Your task to perform on an android device: remove spam from my inbox in the gmail app Image 0: 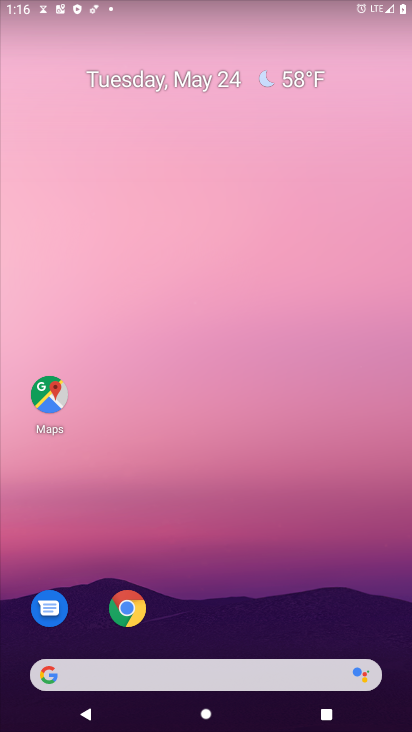
Step 0: press home button
Your task to perform on an android device: remove spam from my inbox in the gmail app Image 1: 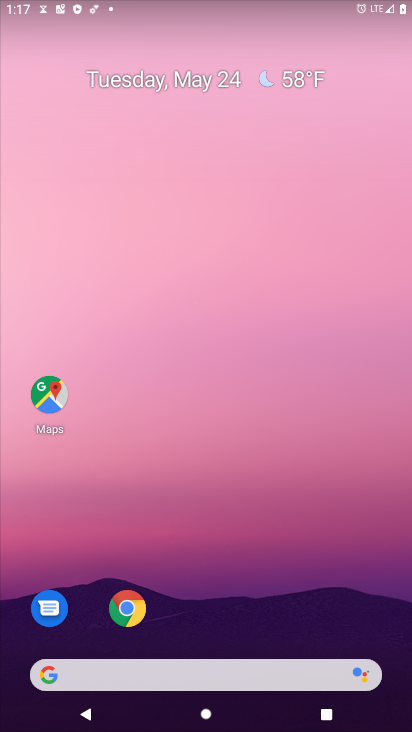
Step 1: drag from (295, 690) to (342, 77)
Your task to perform on an android device: remove spam from my inbox in the gmail app Image 2: 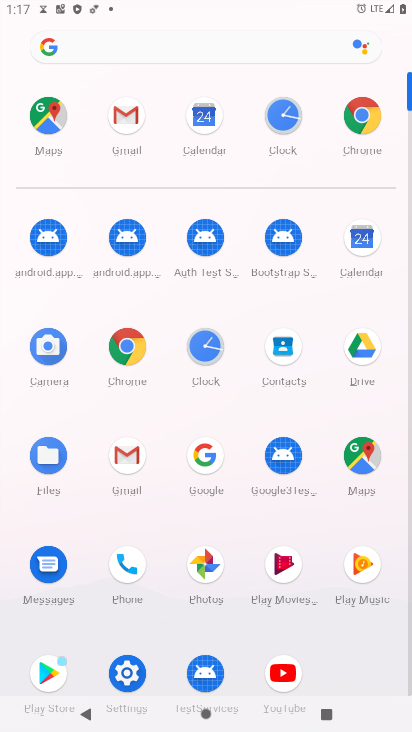
Step 2: click (136, 119)
Your task to perform on an android device: remove spam from my inbox in the gmail app Image 3: 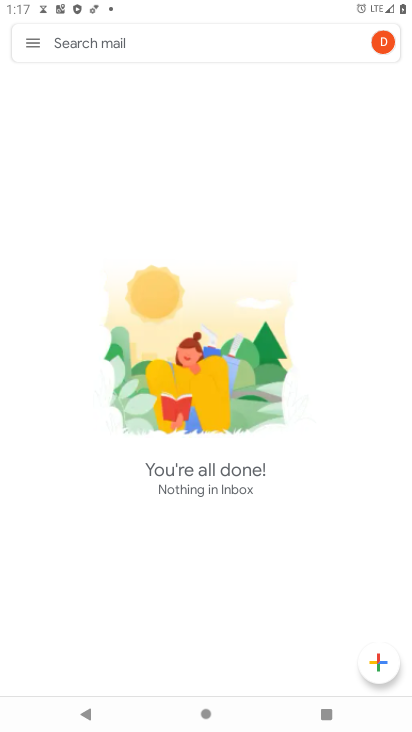
Step 3: click (41, 55)
Your task to perform on an android device: remove spam from my inbox in the gmail app Image 4: 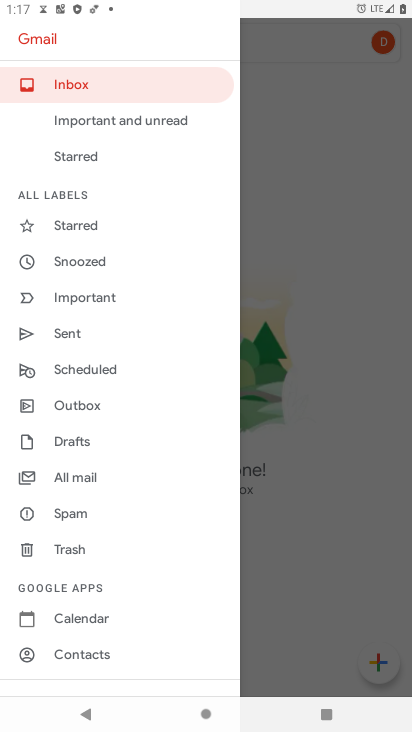
Step 4: click (80, 512)
Your task to perform on an android device: remove spam from my inbox in the gmail app Image 5: 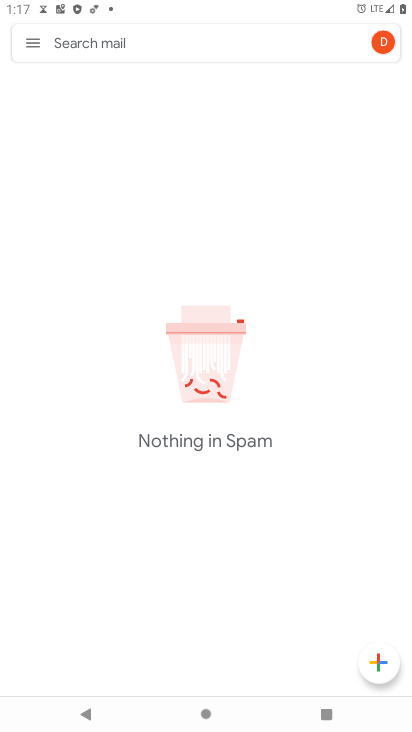
Step 5: task complete